Your task to perform on an android device: Go to CNN.com Image 0: 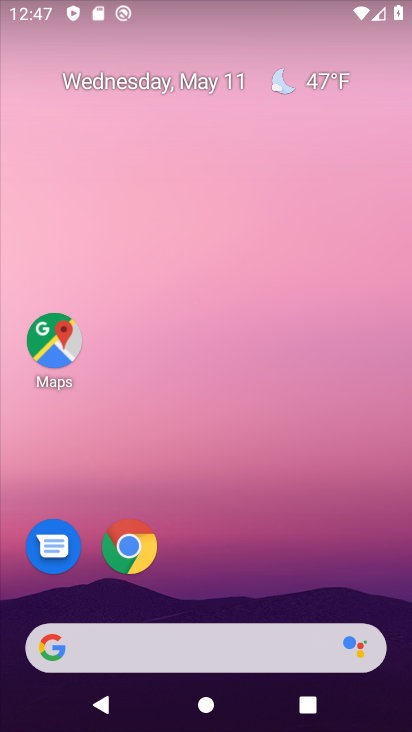
Step 0: click (124, 558)
Your task to perform on an android device: Go to CNN.com Image 1: 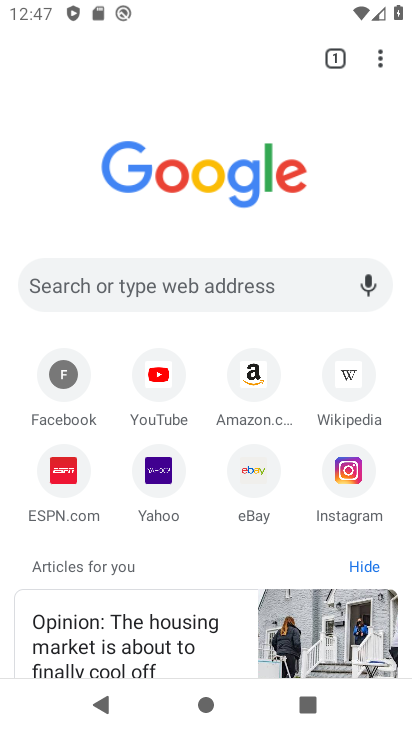
Step 1: click (195, 287)
Your task to perform on an android device: Go to CNN.com Image 2: 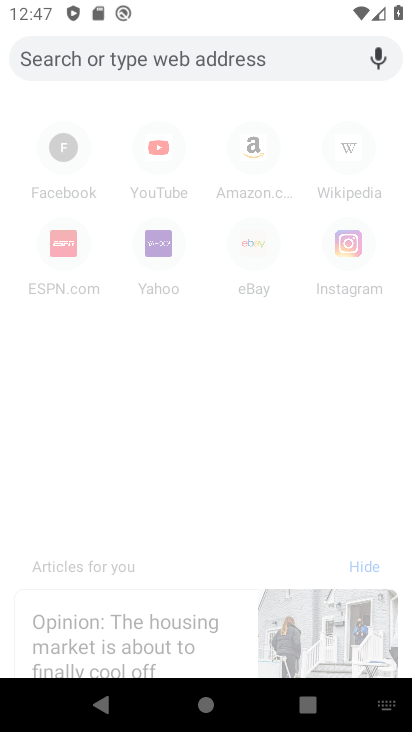
Step 2: type "CNN.com"
Your task to perform on an android device: Go to CNN.com Image 3: 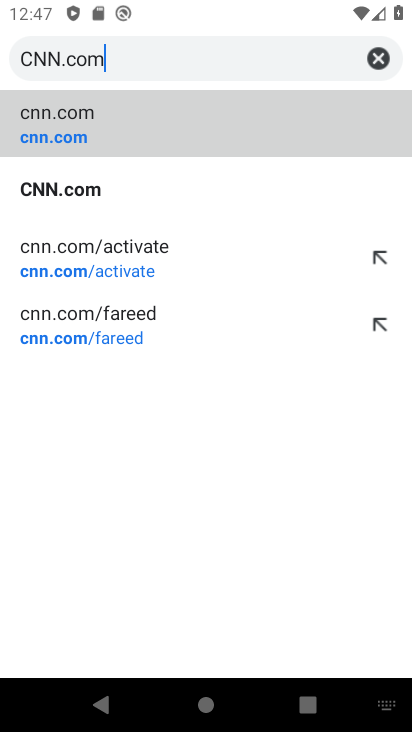
Step 3: click (119, 185)
Your task to perform on an android device: Go to CNN.com Image 4: 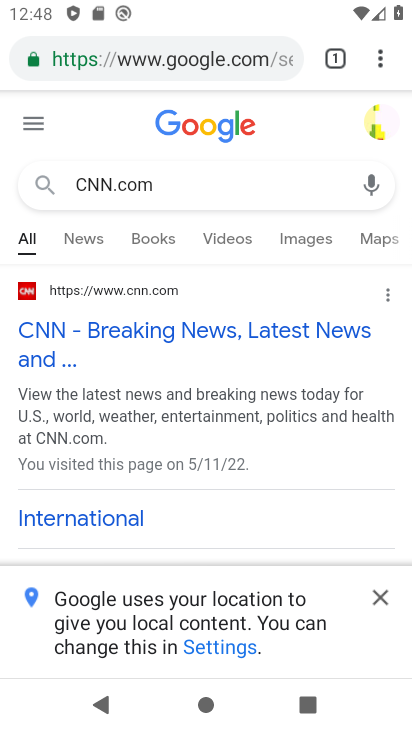
Step 4: click (88, 336)
Your task to perform on an android device: Go to CNN.com Image 5: 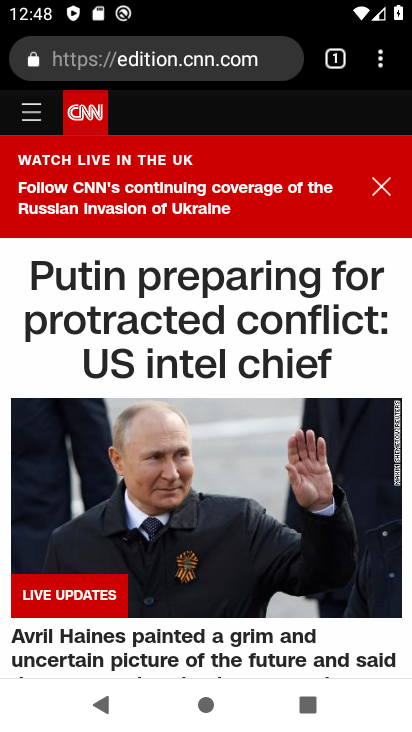
Step 5: task complete